Your task to perform on an android device: Open Chrome and go to settings Image 0: 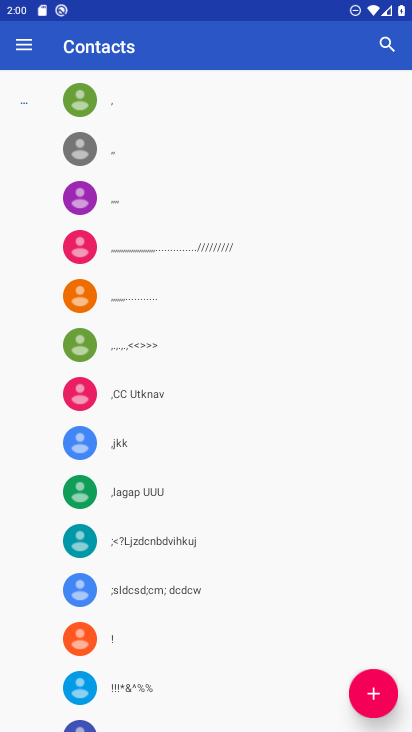
Step 0: press home button
Your task to perform on an android device: Open Chrome and go to settings Image 1: 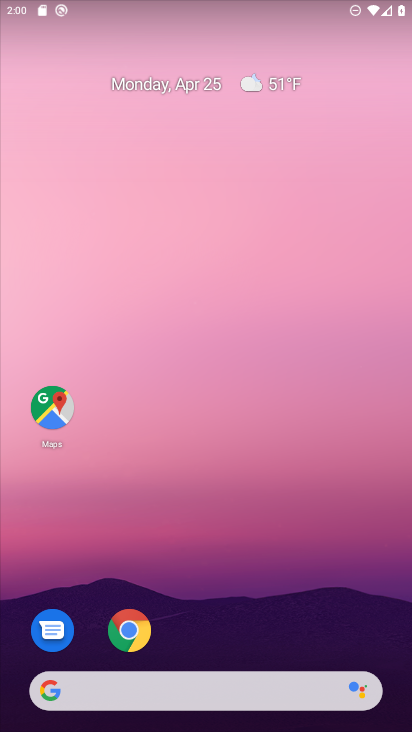
Step 1: drag from (271, 550) to (210, 1)
Your task to perform on an android device: Open Chrome and go to settings Image 2: 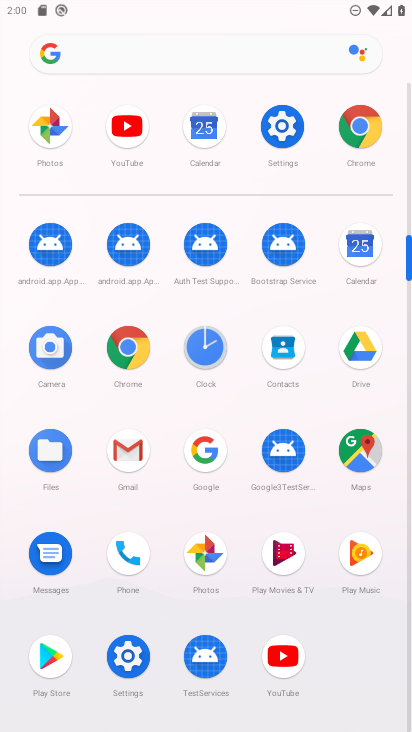
Step 2: click (379, 140)
Your task to perform on an android device: Open Chrome and go to settings Image 3: 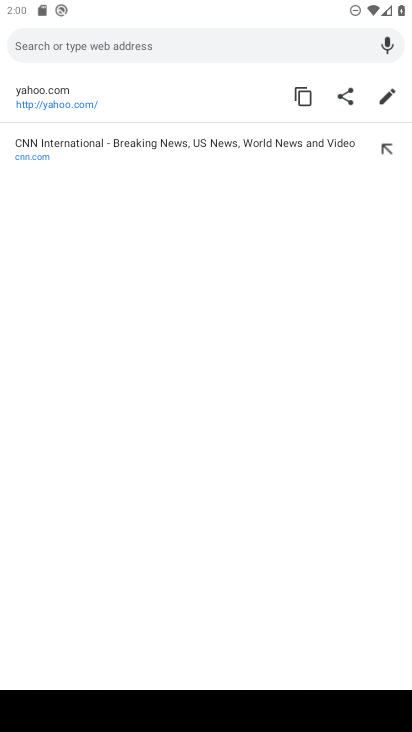
Step 3: task complete